Your task to perform on an android device: change notifications settings Image 0: 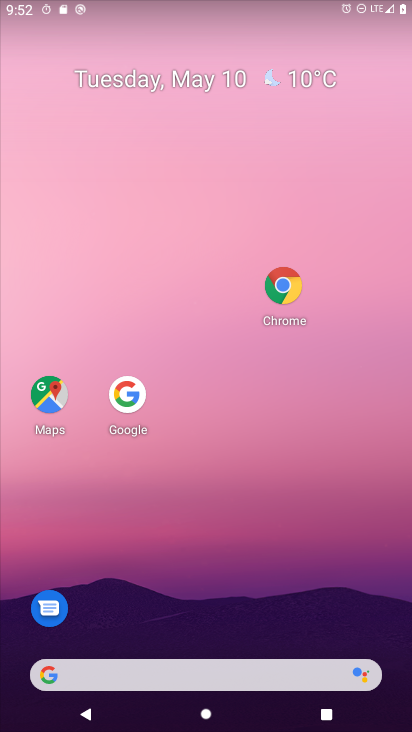
Step 0: drag from (213, 672) to (330, 105)
Your task to perform on an android device: change notifications settings Image 1: 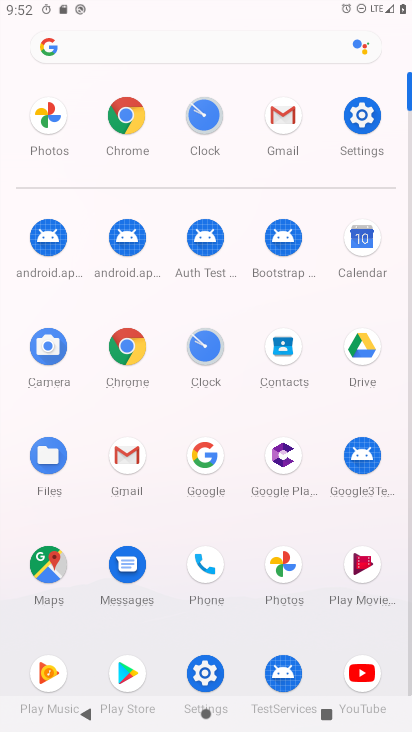
Step 1: click (359, 118)
Your task to perform on an android device: change notifications settings Image 2: 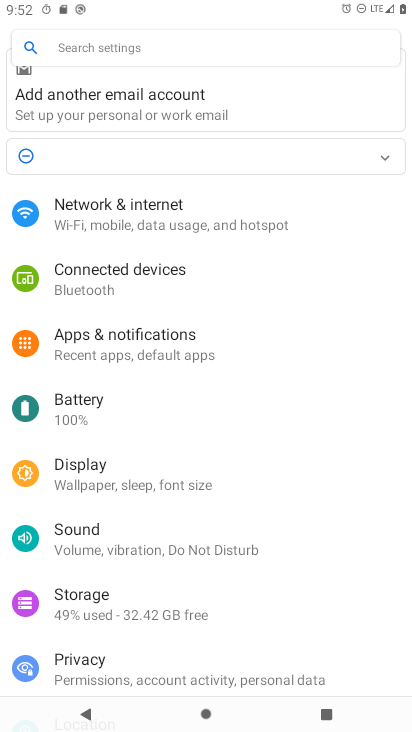
Step 2: click (152, 344)
Your task to perform on an android device: change notifications settings Image 3: 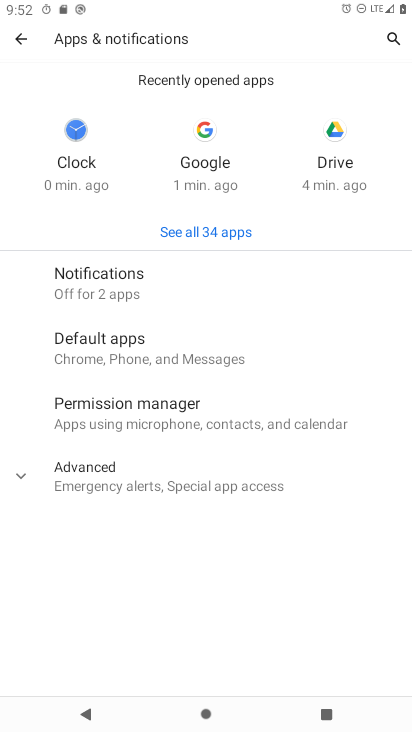
Step 3: click (81, 287)
Your task to perform on an android device: change notifications settings Image 4: 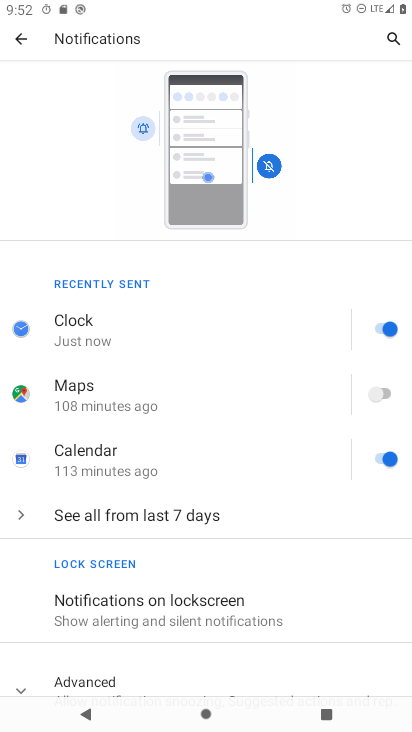
Step 4: click (377, 319)
Your task to perform on an android device: change notifications settings Image 5: 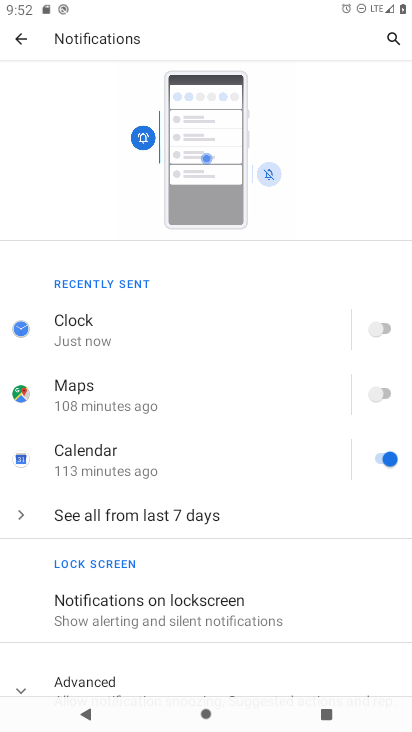
Step 5: task complete